Your task to perform on an android device: Open Google Maps Image 0: 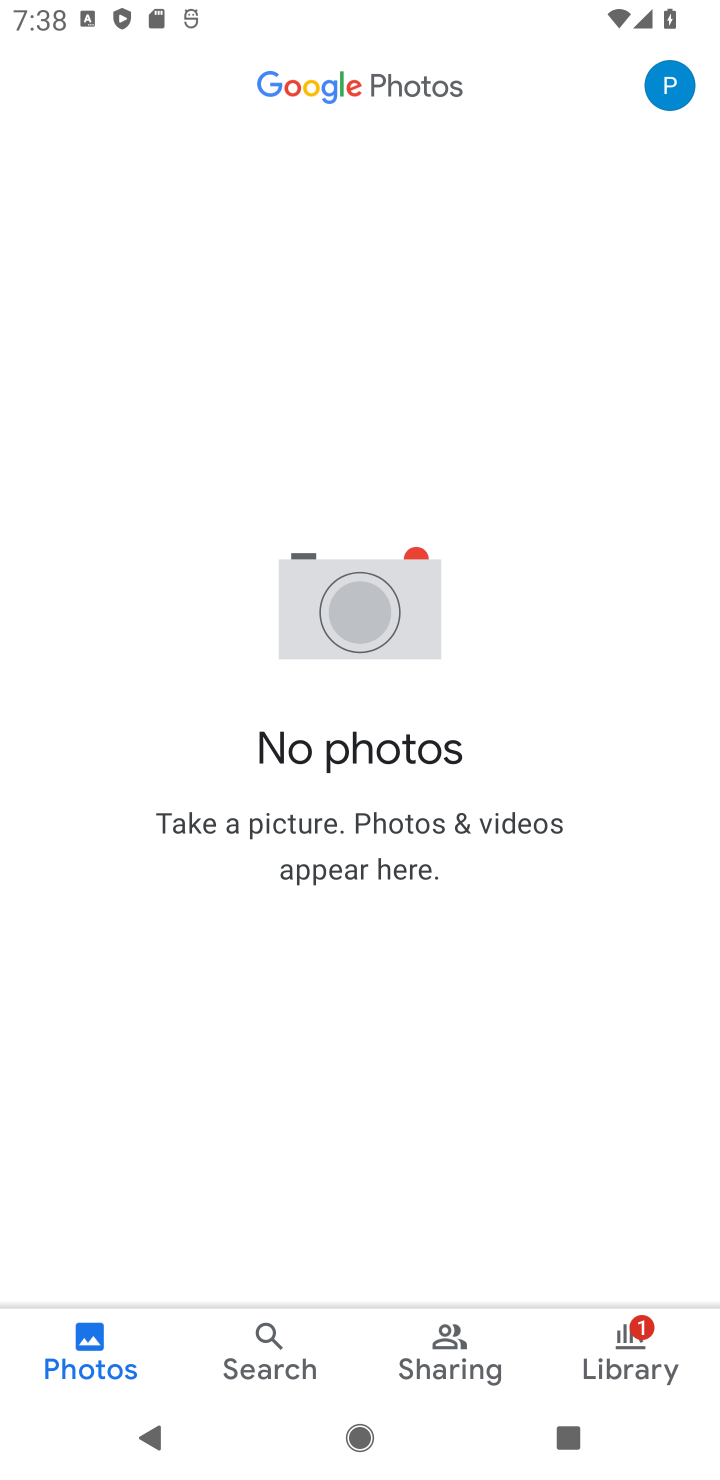
Step 0: press home button
Your task to perform on an android device: Open Google Maps Image 1: 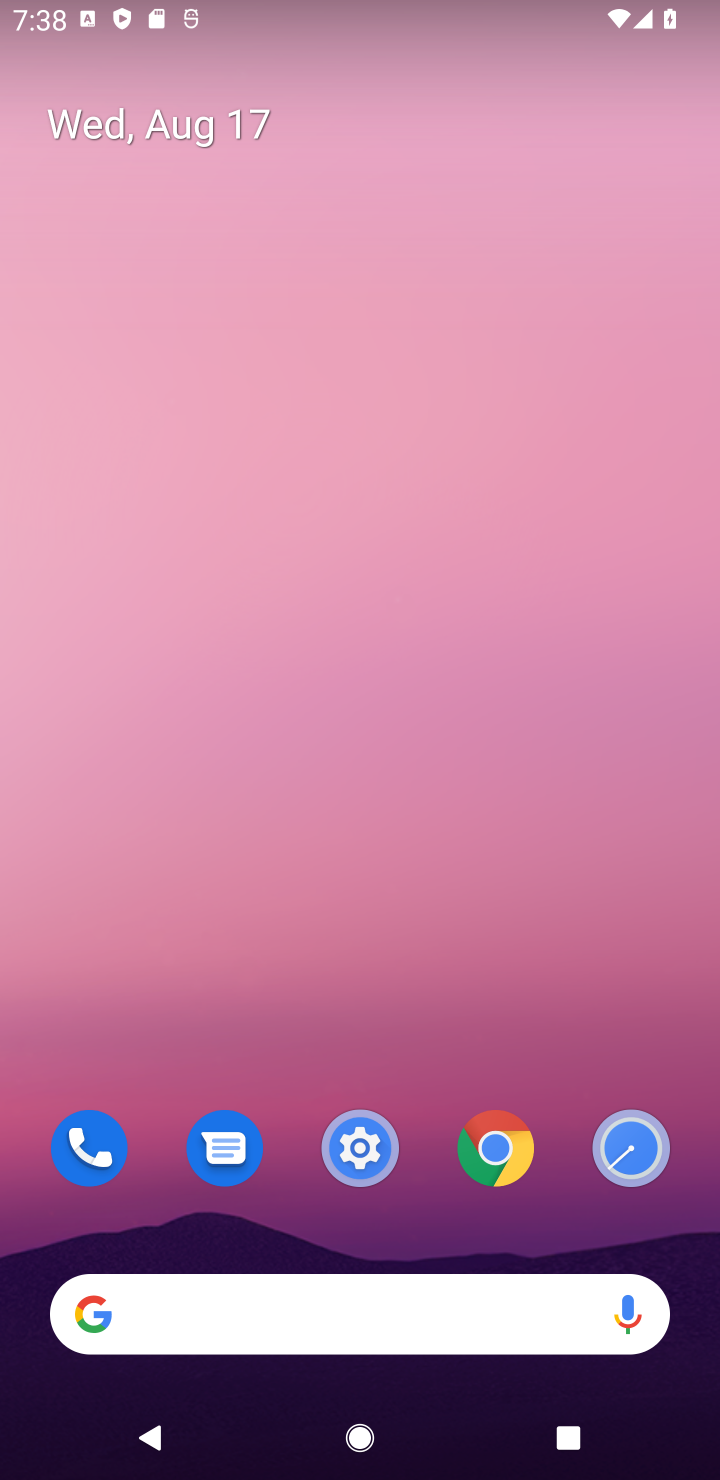
Step 1: drag from (560, 1222) to (471, 471)
Your task to perform on an android device: Open Google Maps Image 2: 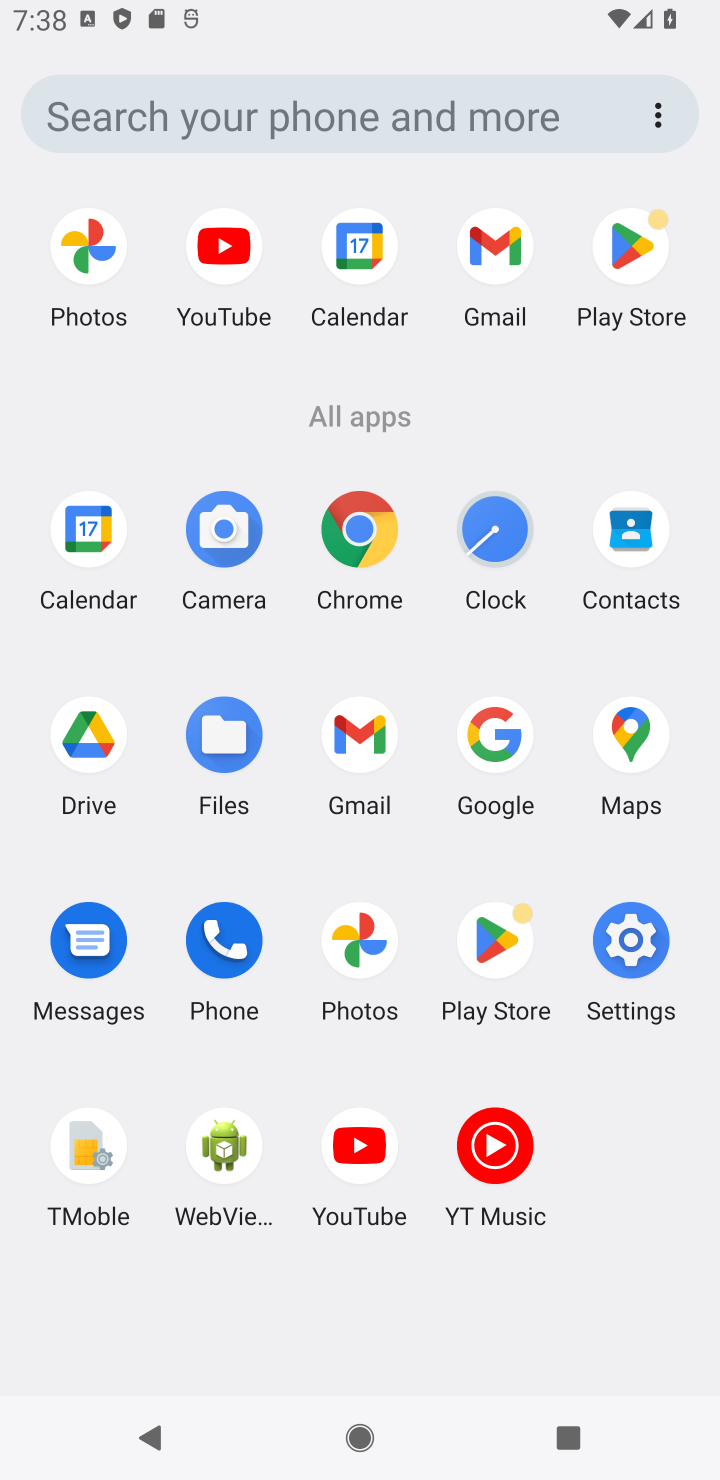
Step 2: click (624, 726)
Your task to perform on an android device: Open Google Maps Image 3: 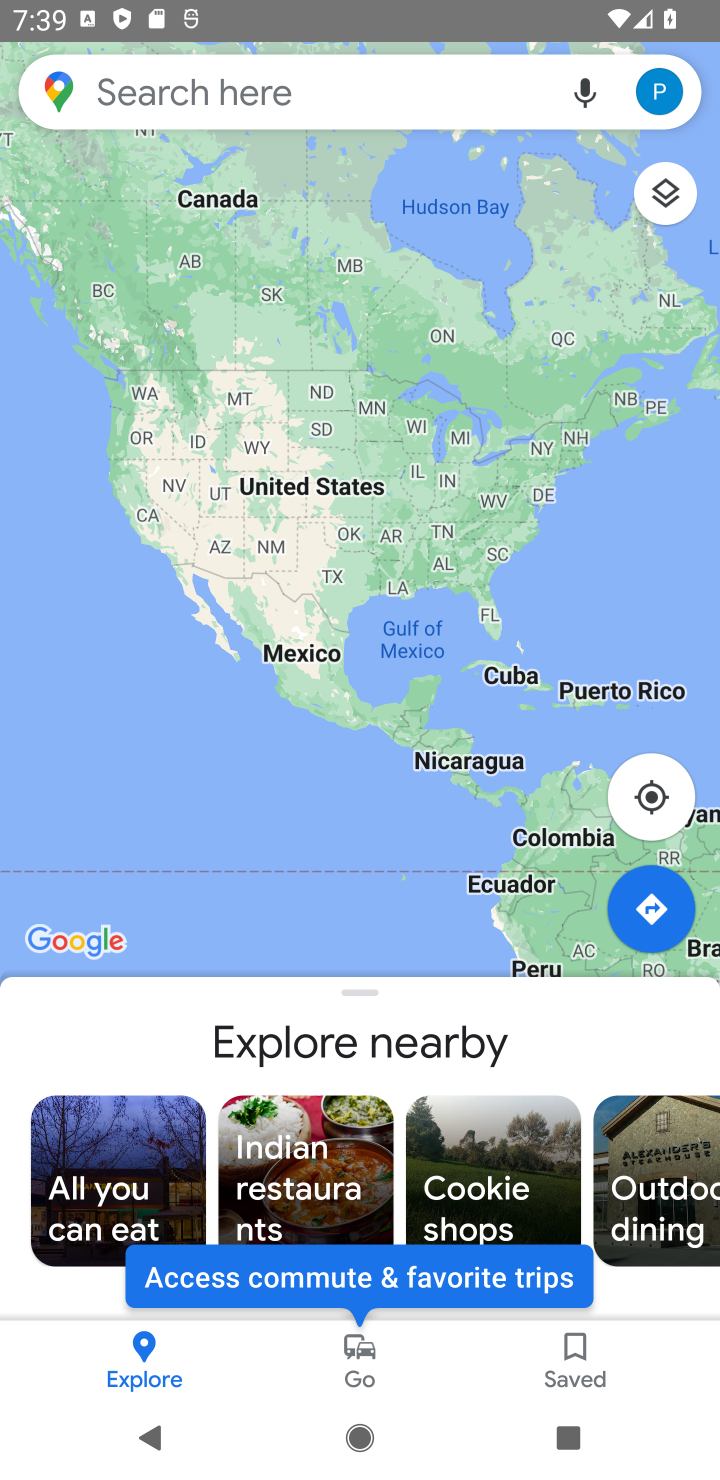
Step 3: task complete